Your task to perform on an android device: change text size in settings app Image 0: 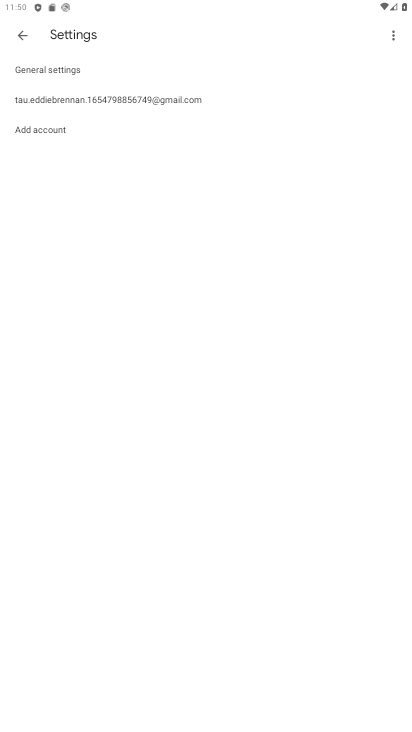
Step 0: press home button
Your task to perform on an android device: change text size in settings app Image 1: 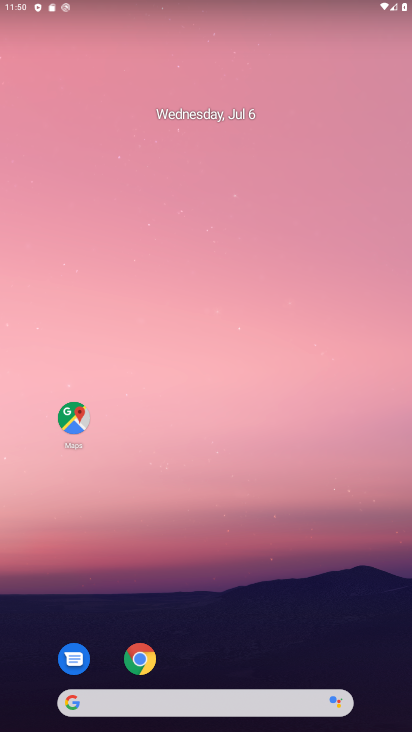
Step 1: drag from (238, 630) to (205, 153)
Your task to perform on an android device: change text size in settings app Image 2: 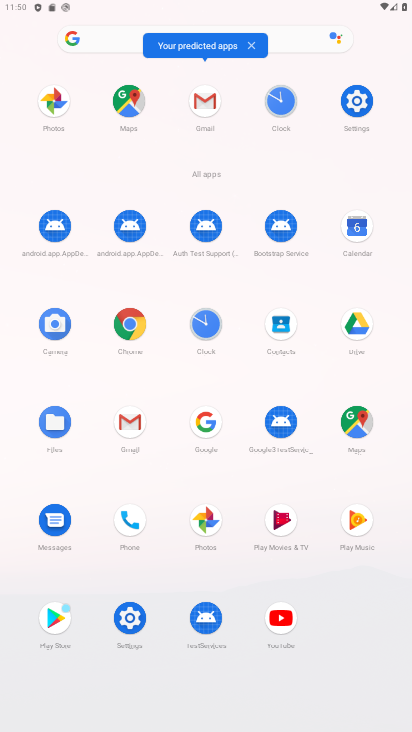
Step 2: click (358, 109)
Your task to perform on an android device: change text size in settings app Image 3: 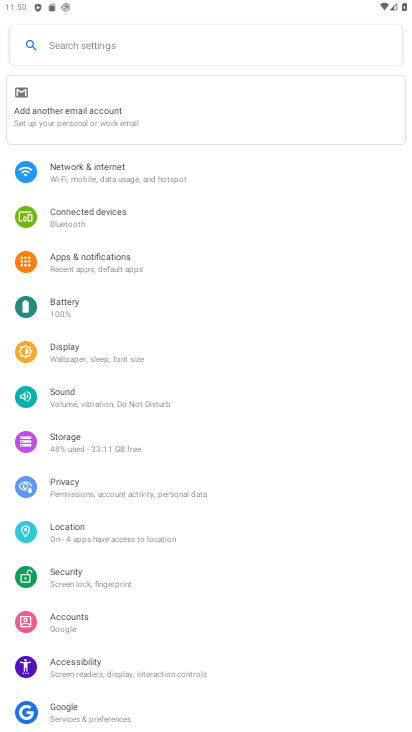
Step 3: click (90, 362)
Your task to perform on an android device: change text size in settings app Image 4: 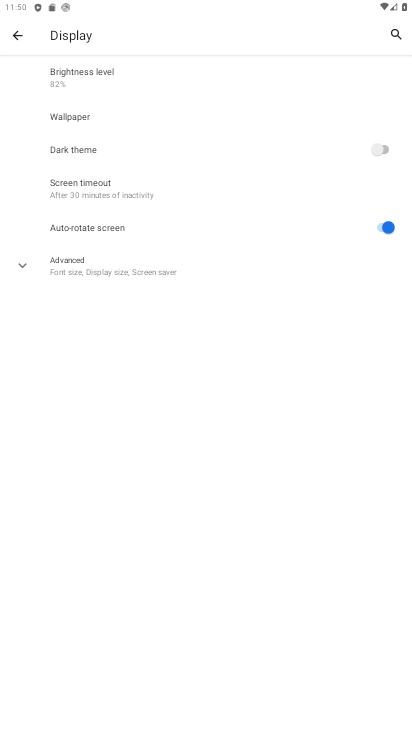
Step 4: click (169, 266)
Your task to perform on an android device: change text size in settings app Image 5: 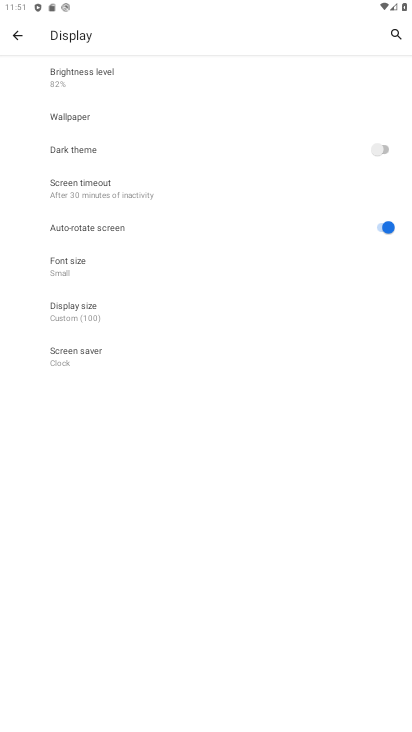
Step 5: click (181, 278)
Your task to perform on an android device: change text size in settings app Image 6: 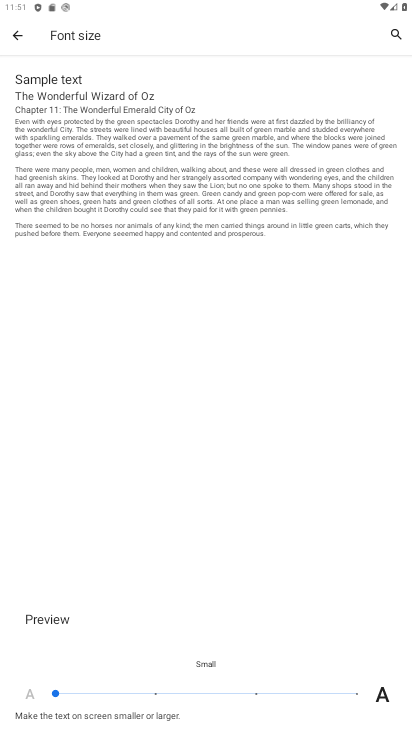
Step 6: click (253, 692)
Your task to perform on an android device: change text size in settings app Image 7: 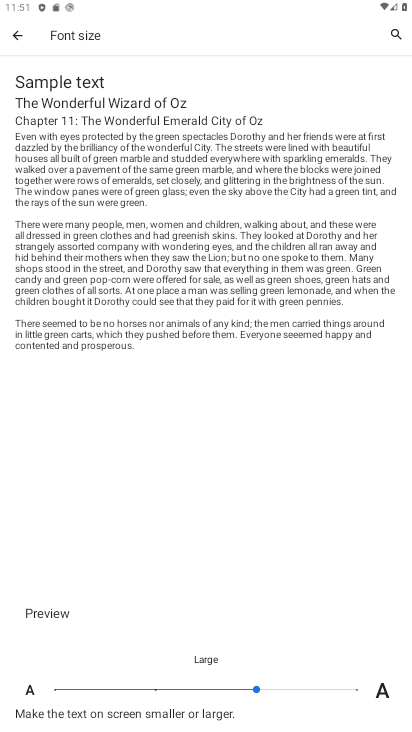
Step 7: task complete